Your task to perform on an android device: add a label to a message in the gmail app Image 0: 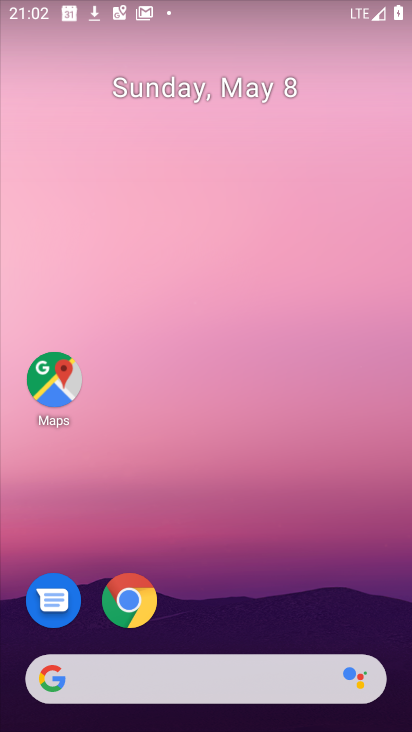
Step 0: drag from (258, 708) to (226, 207)
Your task to perform on an android device: add a label to a message in the gmail app Image 1: 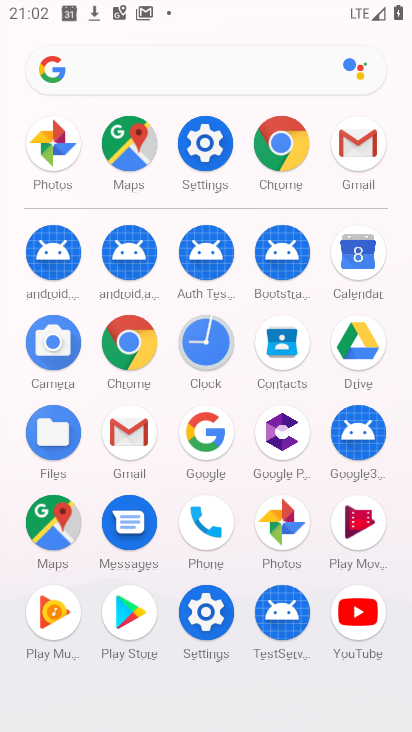
Step 1: click (354, 162)
Your task to perform on an android device: add a label to a message in the gmail app Image 2: 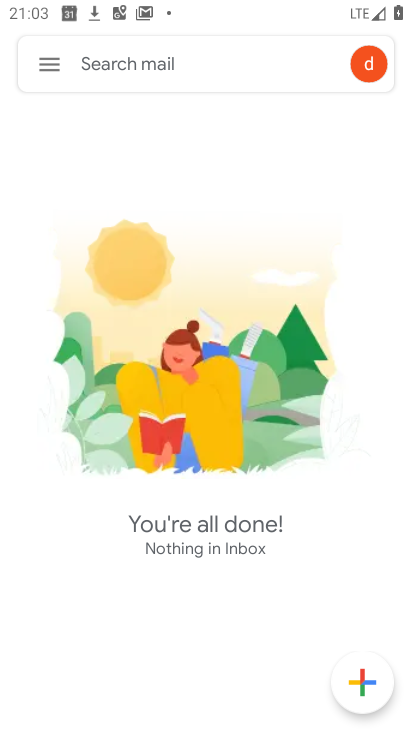
Step 2: click (34, 79)
Your task to perform on an android device: add a label to a message in the gmail app Image 3: 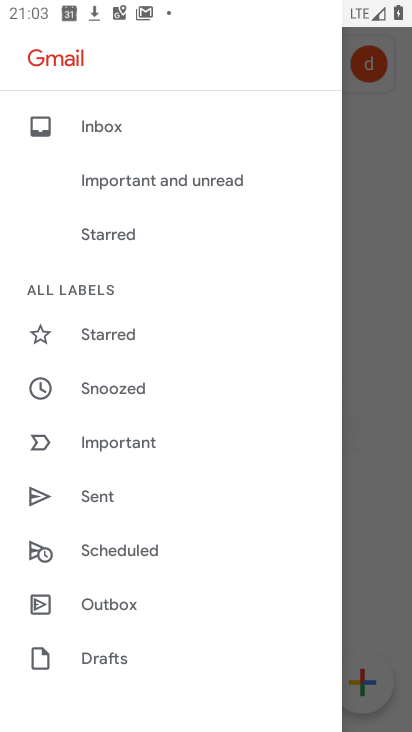
Step 3: drag from (105, 617) to (181, 417)
Your task to perform on an android device: add a label to a message in the gmail app Image 4: 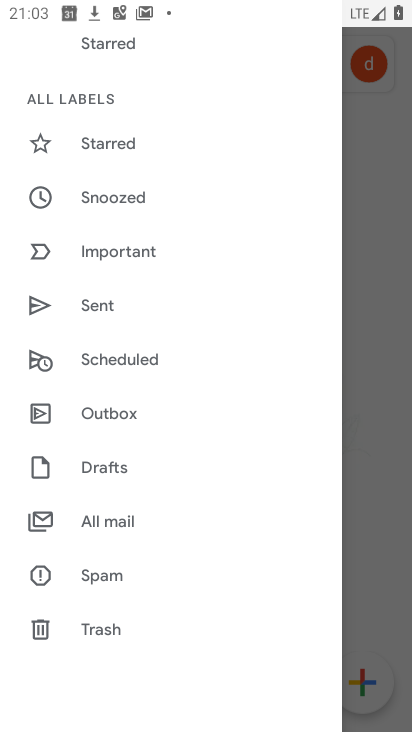
Step 4: drag from (134, 595) to (210, 422)
Your task to perform on an android device: add a label to a message in the gmail app Image 5: 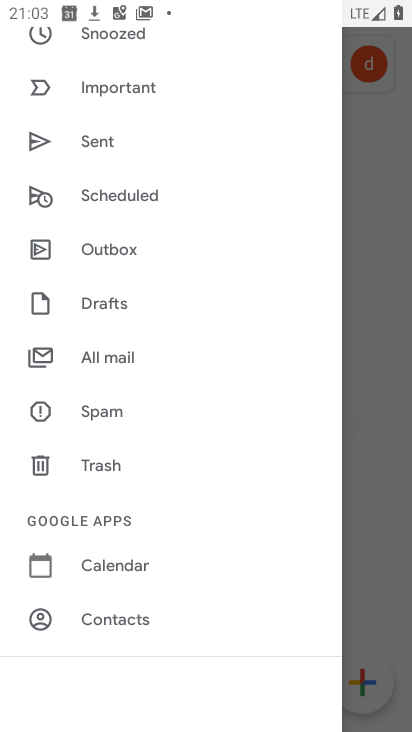
Step 5: drag from (118, 641) to (198, 491)
Your task to perform on an android device: add a label to a message in the gmail app Image 6: 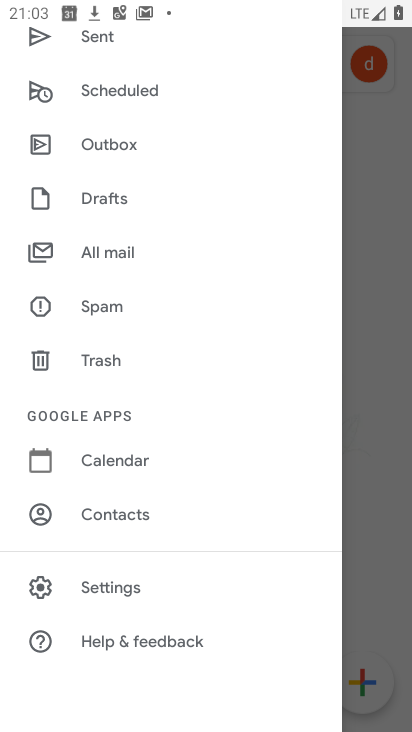
Step 6: click (139, 577)
Your task to perform on an android device: add a label to a message in the gmail app Image 7: 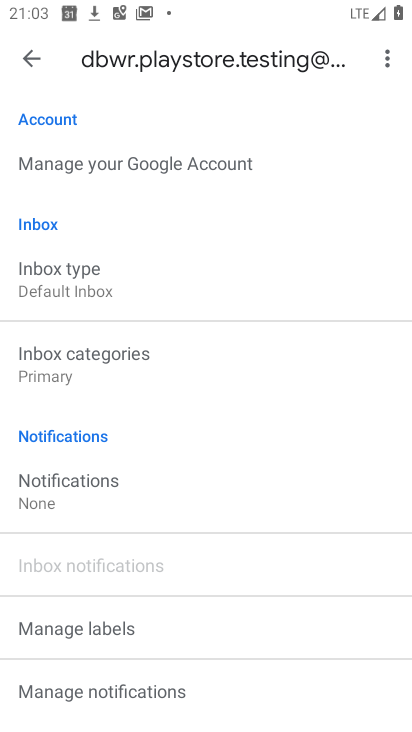
Step 7: click (52, 641)
Your task to perform on an android device: add a label to a message in the gmail app Image 8: 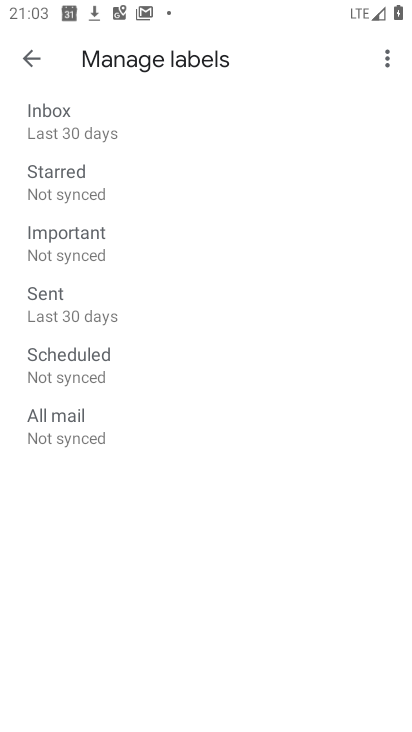
Step 8: click (124, 253)
Your task to perform on an android device: add a label to a message in the gmail app Image 9: 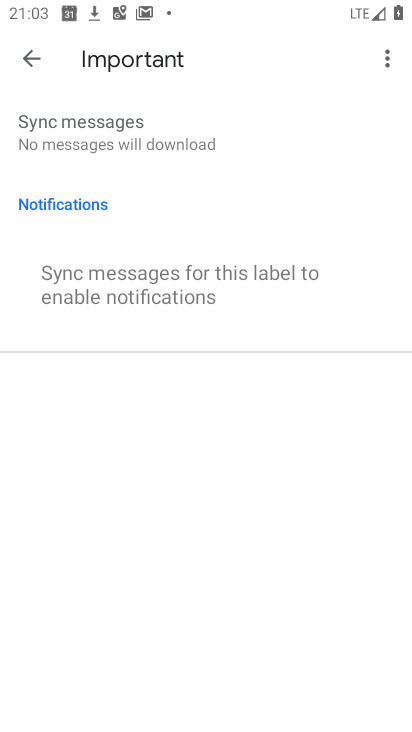
Step 9: task complete